Your task to perform on an android device: Open the web browser Image 0: 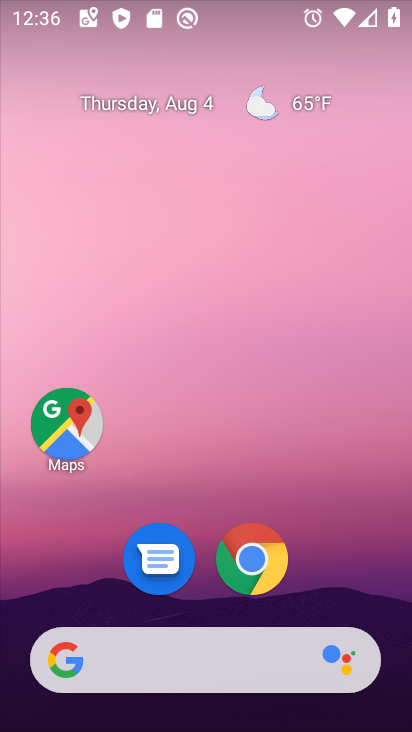
Step 0: click (250, 561)
Your task to perform on an android device: Open the web browser Image 1: 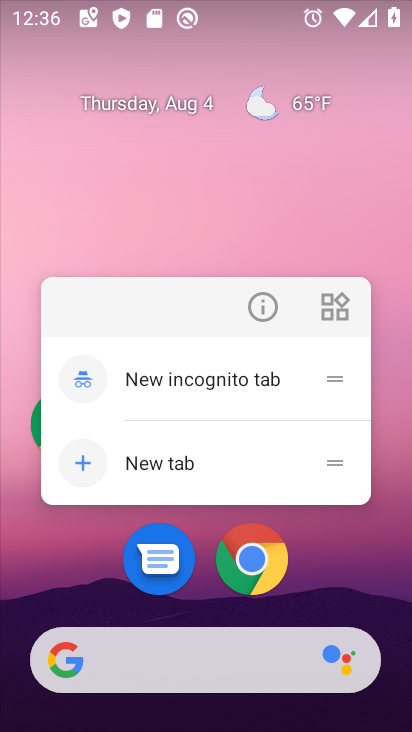
Step 1: click (250, 561)
Your task to perform on an android device: Open the web browser Image 2: 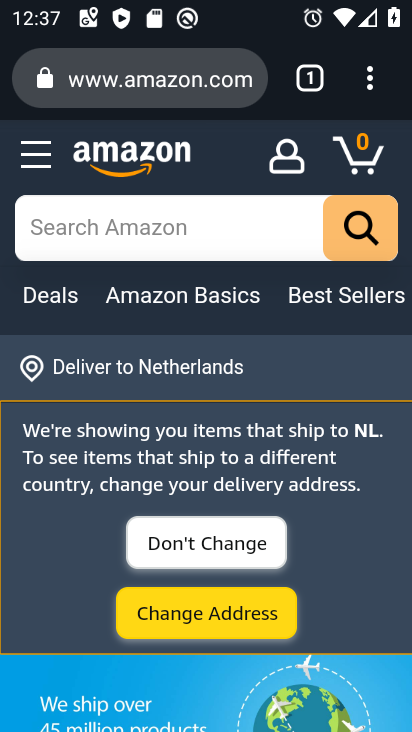
Step 2: task complete